Your task to perform on an android device: visit the assistant section in the google photos Image 0: 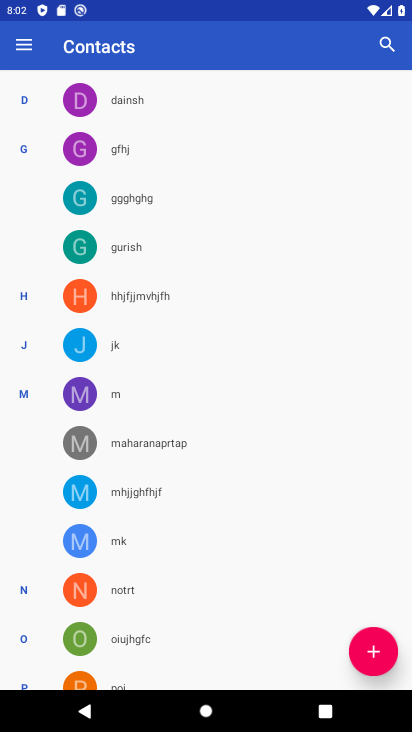
Step 0: press home button
Your task to perform on an android device: visit the assistant section in the google photos Image 1: 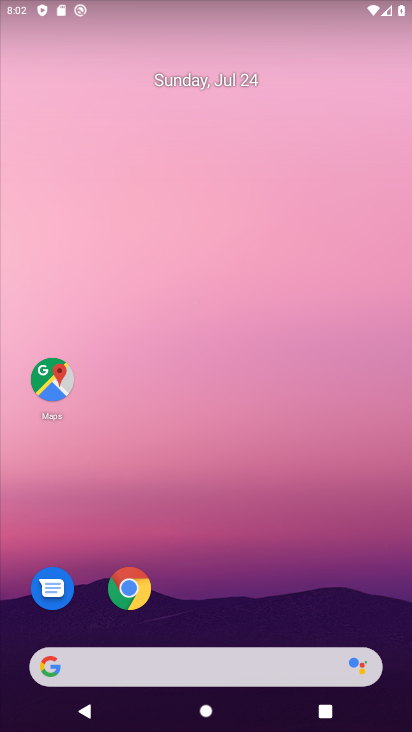
Step 1: drag from (301, 552) to (299, 46)
Your task to perform on an android device: visit the assistant section in the google photos Image 2: 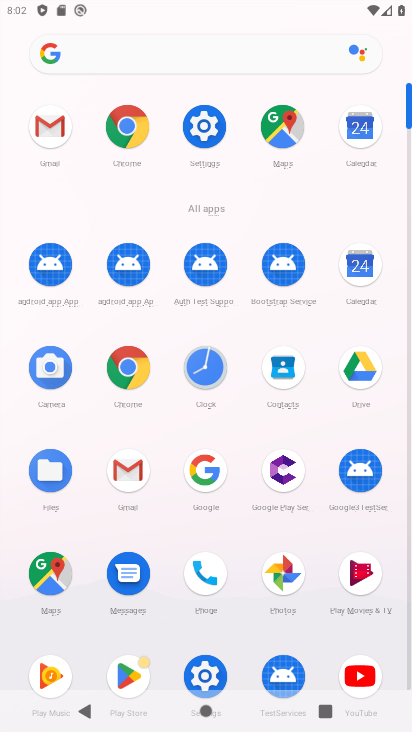
Step 2: click (283, 577)
Your task to perform on an android device: visit the assistant section in the google photos Image 3: 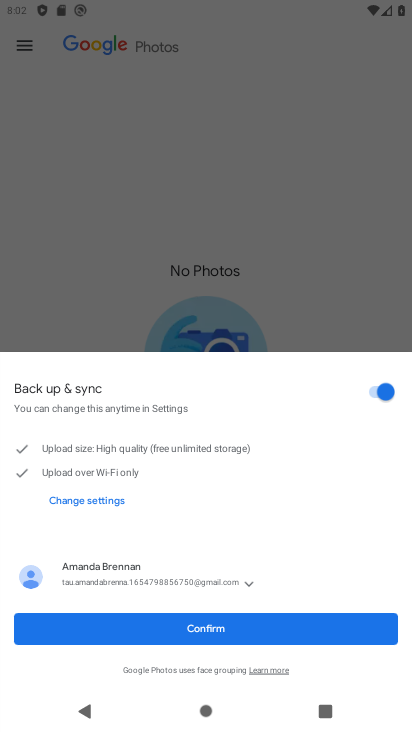
Step 3: click (281, 628)
Your task to perform on an android device: visit the assistant section in the google photos Image 4: 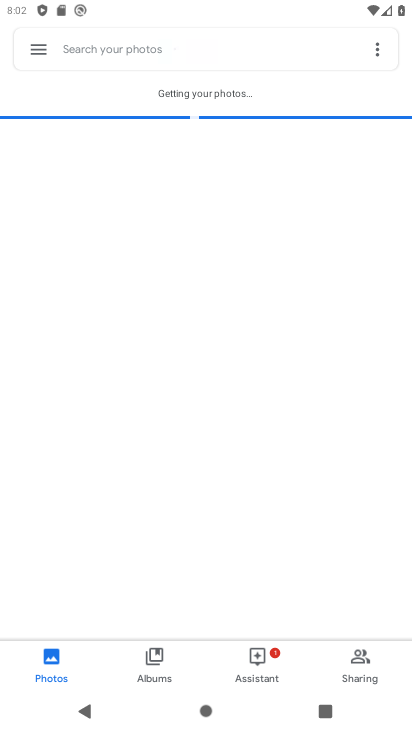
Step 4: click (272, 664)
Your task to perform on an android device: visit the assistant section in the google photos Image 5: 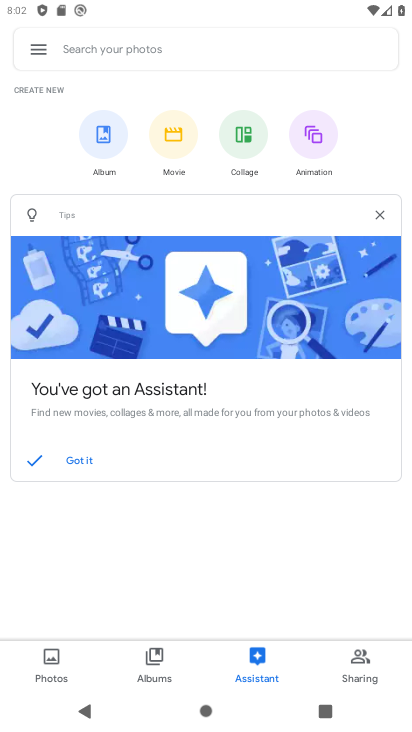
Step 5: task complete